Your task to perform on an android device: all mails in gmail Image 0: 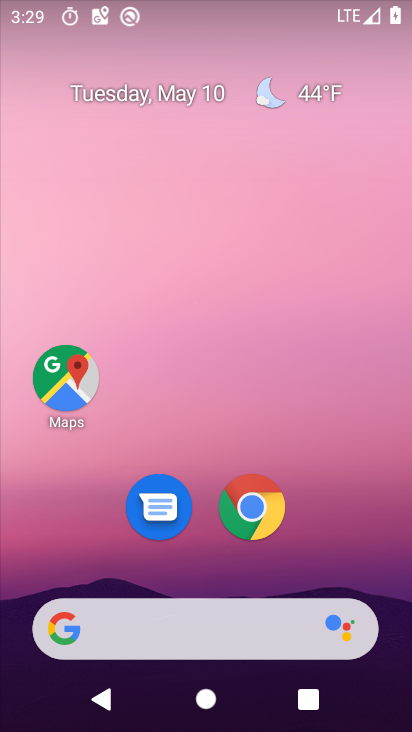
Step 0: drag from (148, 556) to (120, 246)
Your task to perform on an android device: all mails in gmail Image 1: 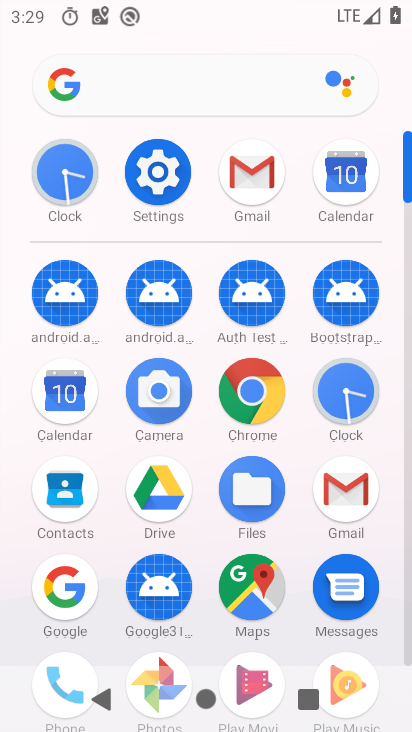
Step 1: click (263, 196)
Your task to perform on an android device: all mails in gmail Image 2: 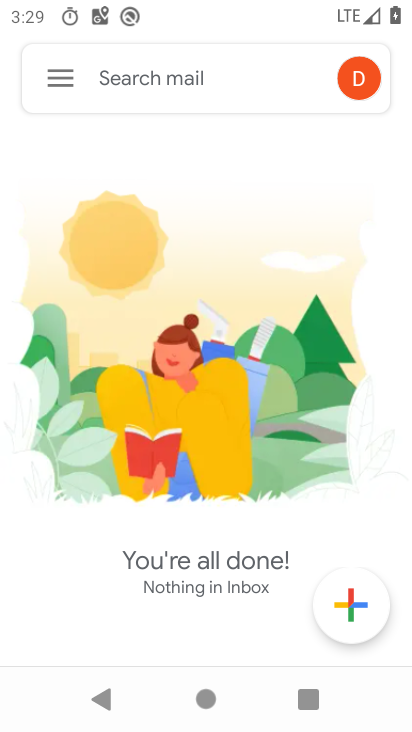
Step 2: click (67, 83)
Your task to perform on an android device: all mails in gmail Image 3: 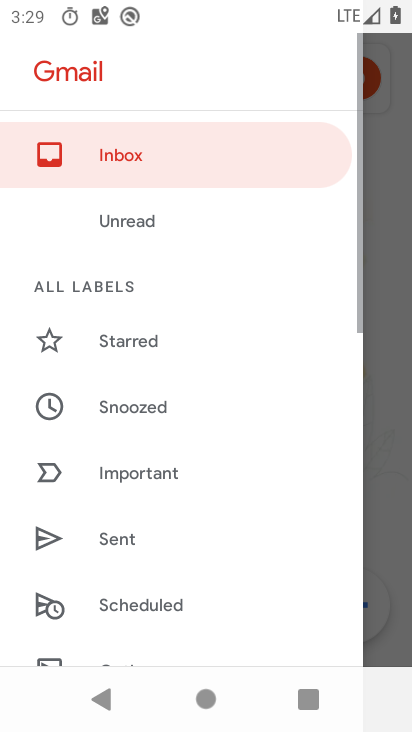
Step 3: drag from (131, 639) to (134, 294)
Your task to perform on an android device: all mails in gmail Image 4: 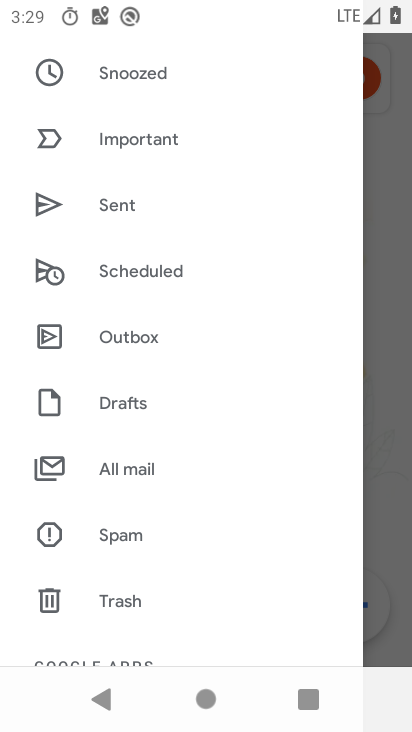
Step 4: click (136, 473)
Your task to perform on an android device: all mails in gmail Image 5: 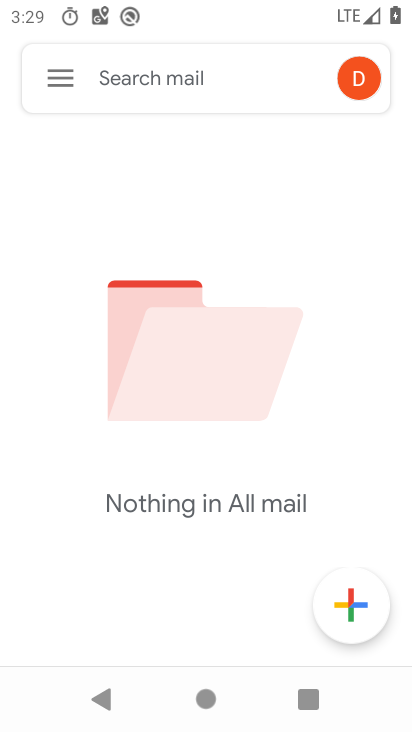
Step 5: task complete